Your task to perform on an android device: How much does a 2 bedroom apartment rent for in Philadelphia? Image 0: 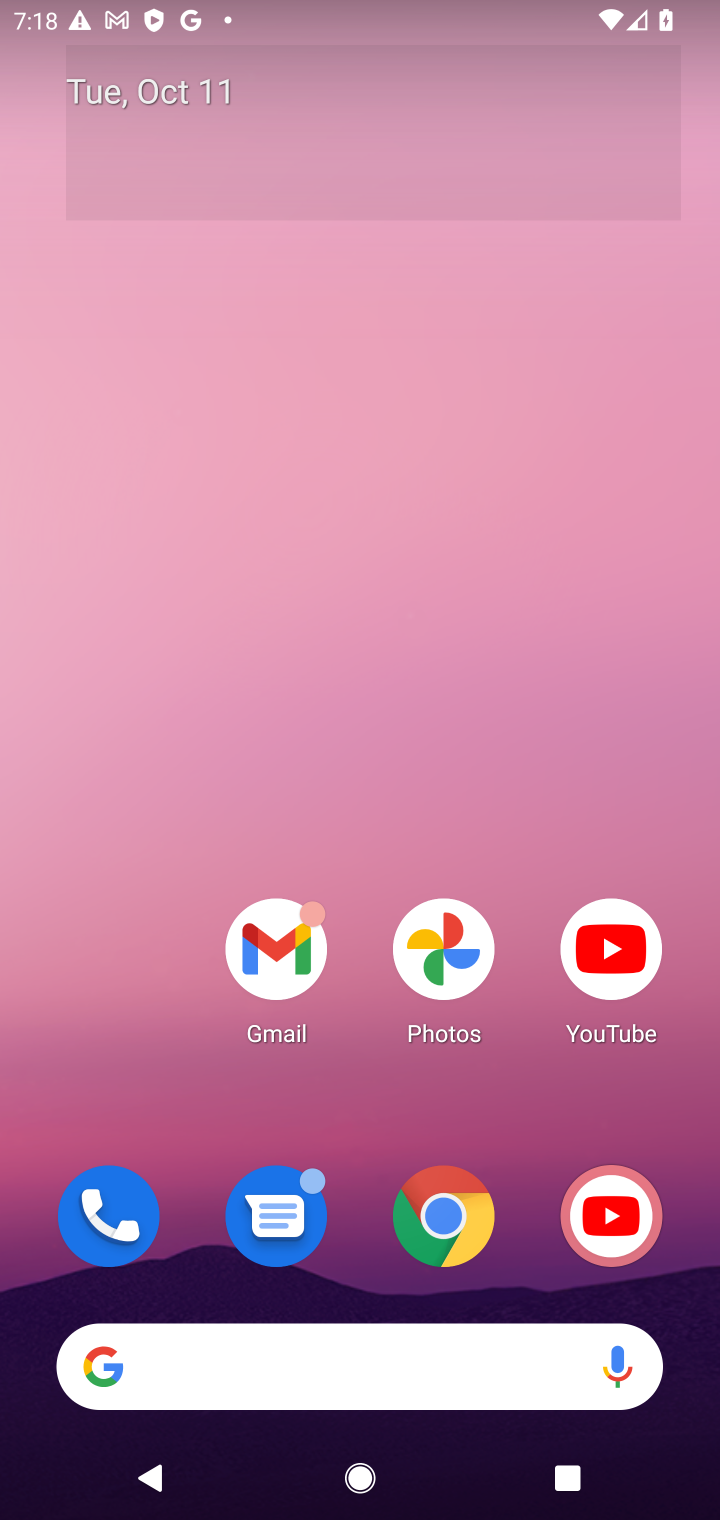
Step 0: click (463, 1261)
Your task to perform on an android device: How much does a 2 bedroom apartment rent for in Philadelphia? Image 1: 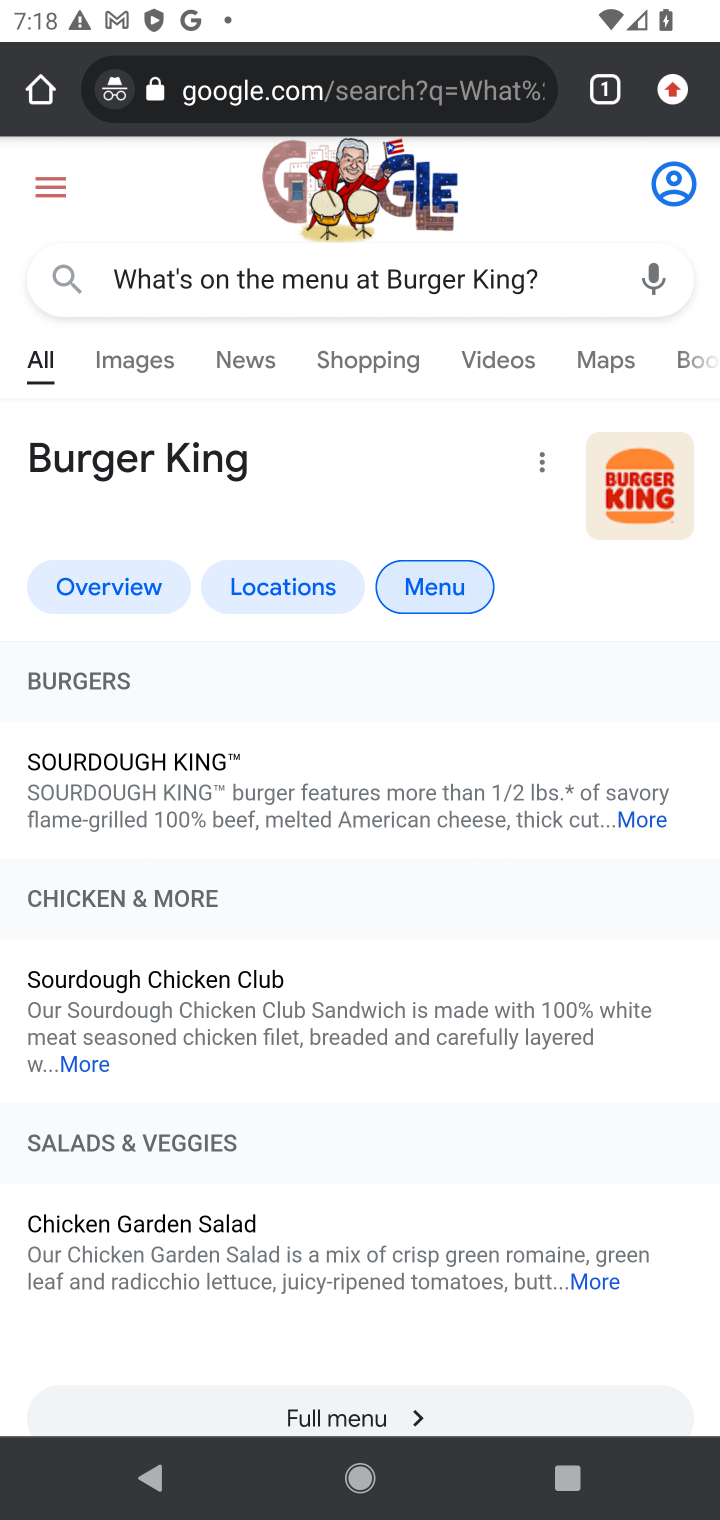
Step 1: click (596, 292)
Your task to perform on an android device: How much does a 2 bedroom apartment rent for in Philadelphia? Image 2: 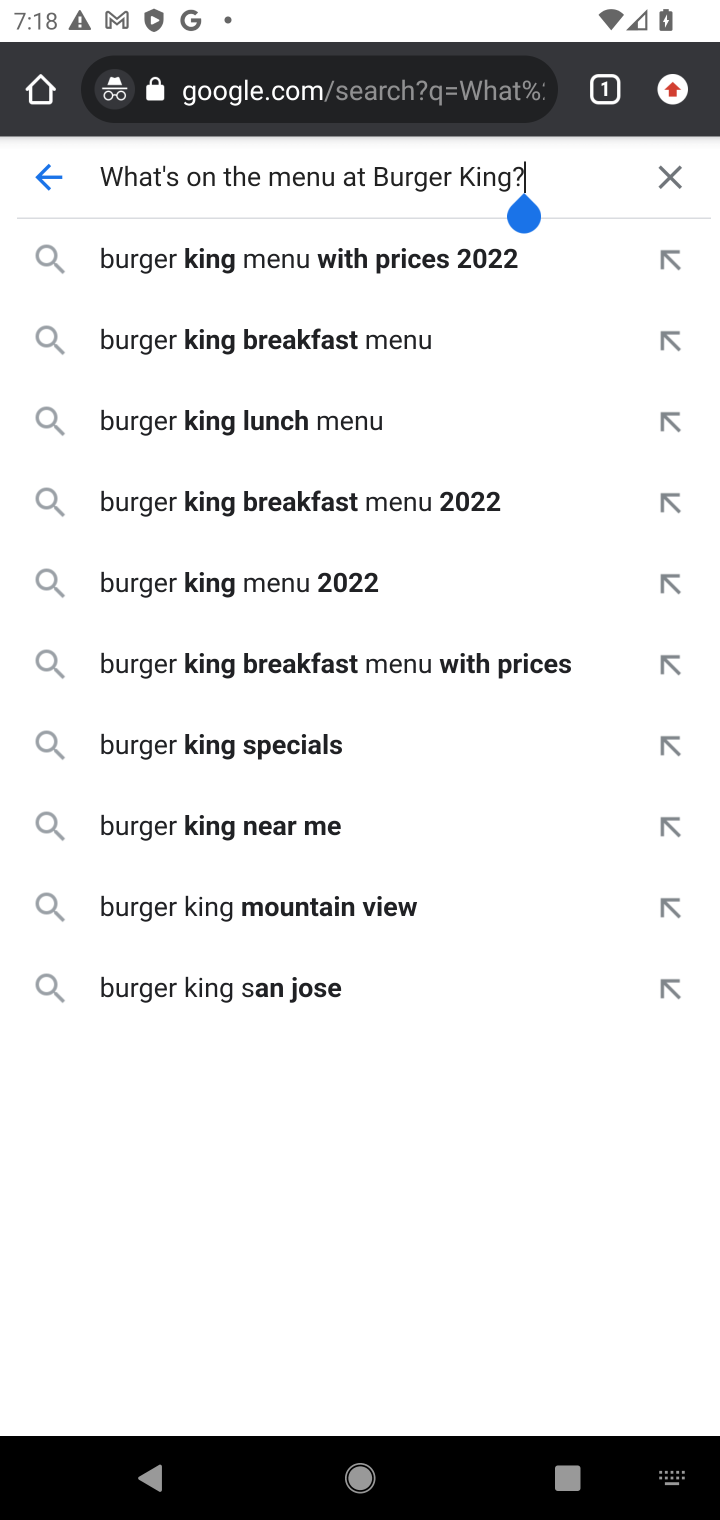
Step 2: click (675, 178)
Your task to perform on an android device: How much does a 2 bedroom apartment rent for in Philadelphia? Image 3: 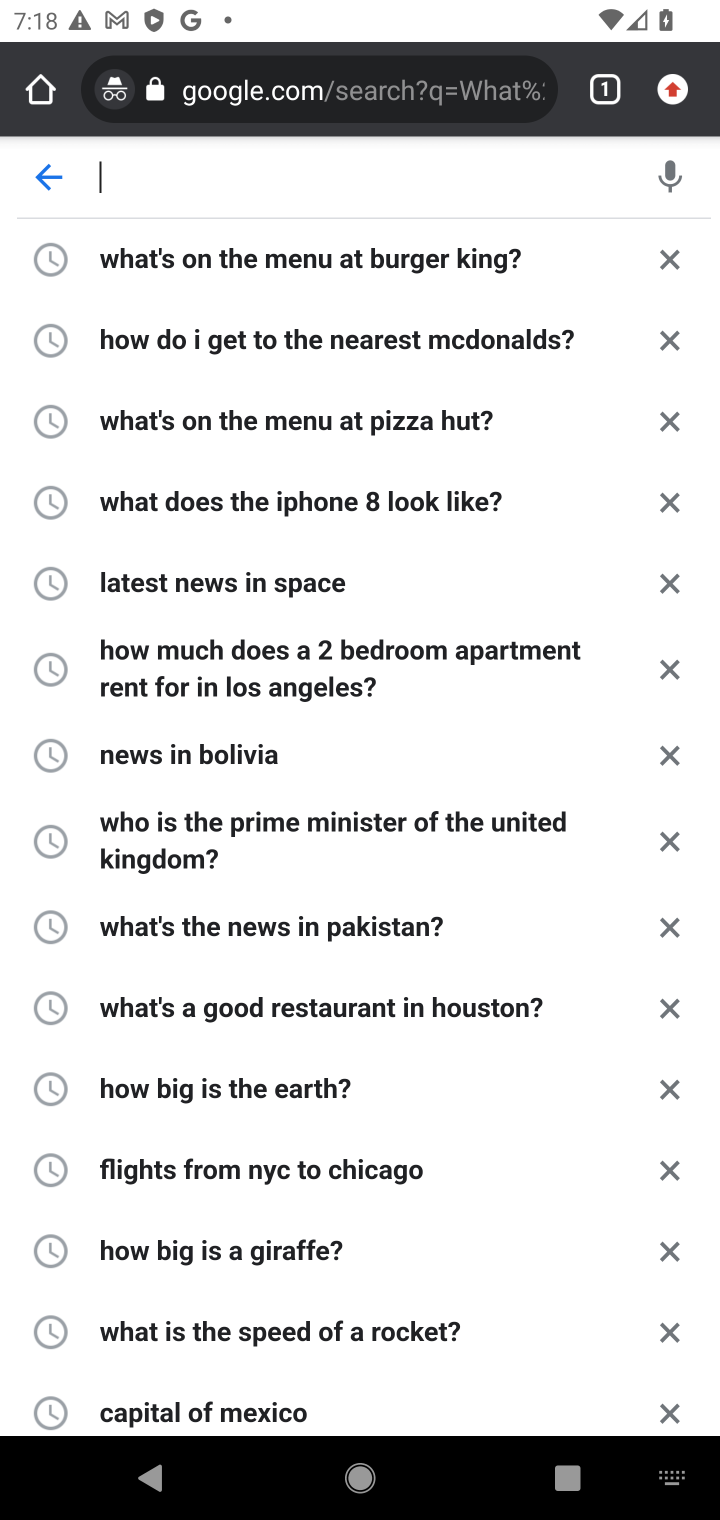
Step 3: type "How much does a 2 bedroom apartment rent for in Philadelphia?"
Your task to perform on an android device: How much does a 2 bedroom apartment rent for in Philadelphia? Image 4: 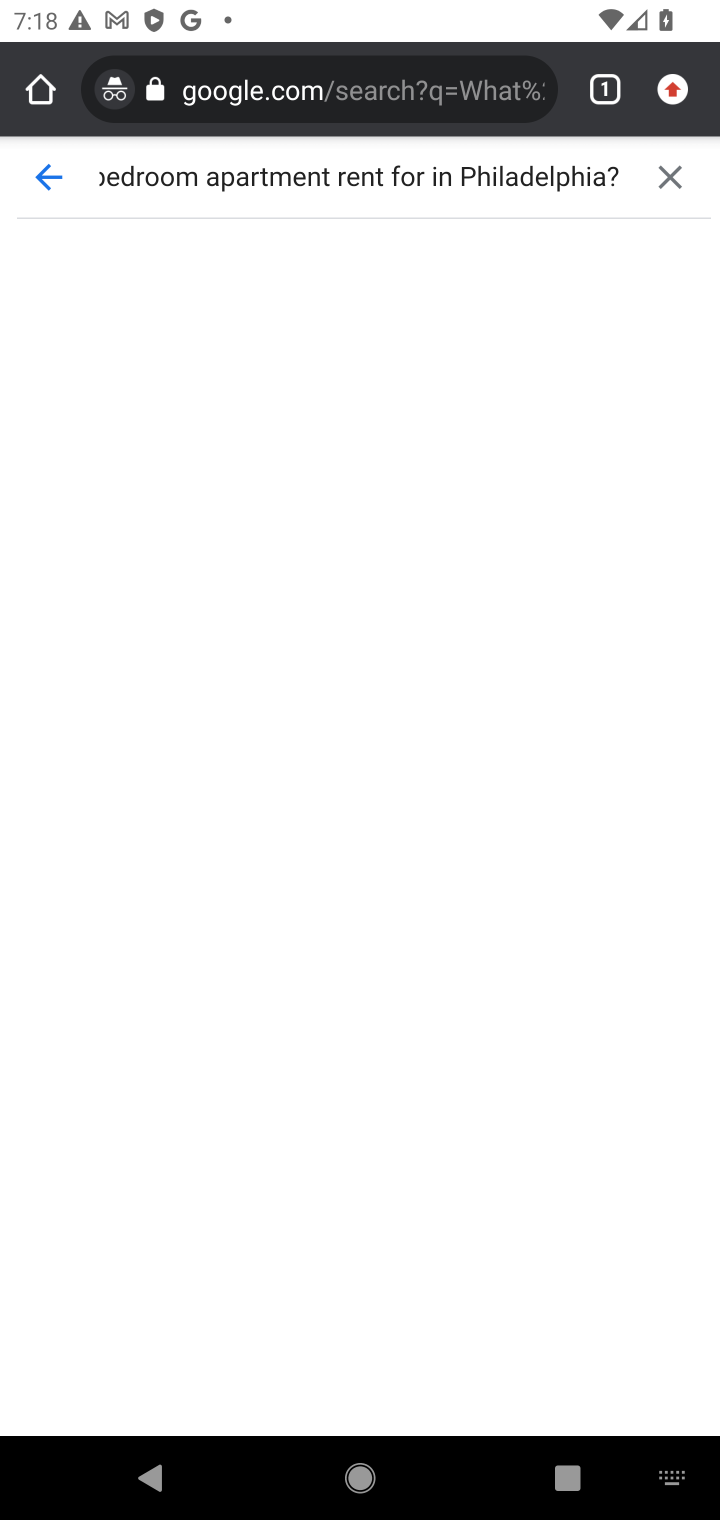
Step 4: press enter
Your task to perform on an android device: How much does a 2 bedroom apartment rent for in Philadelphia? Image 5: 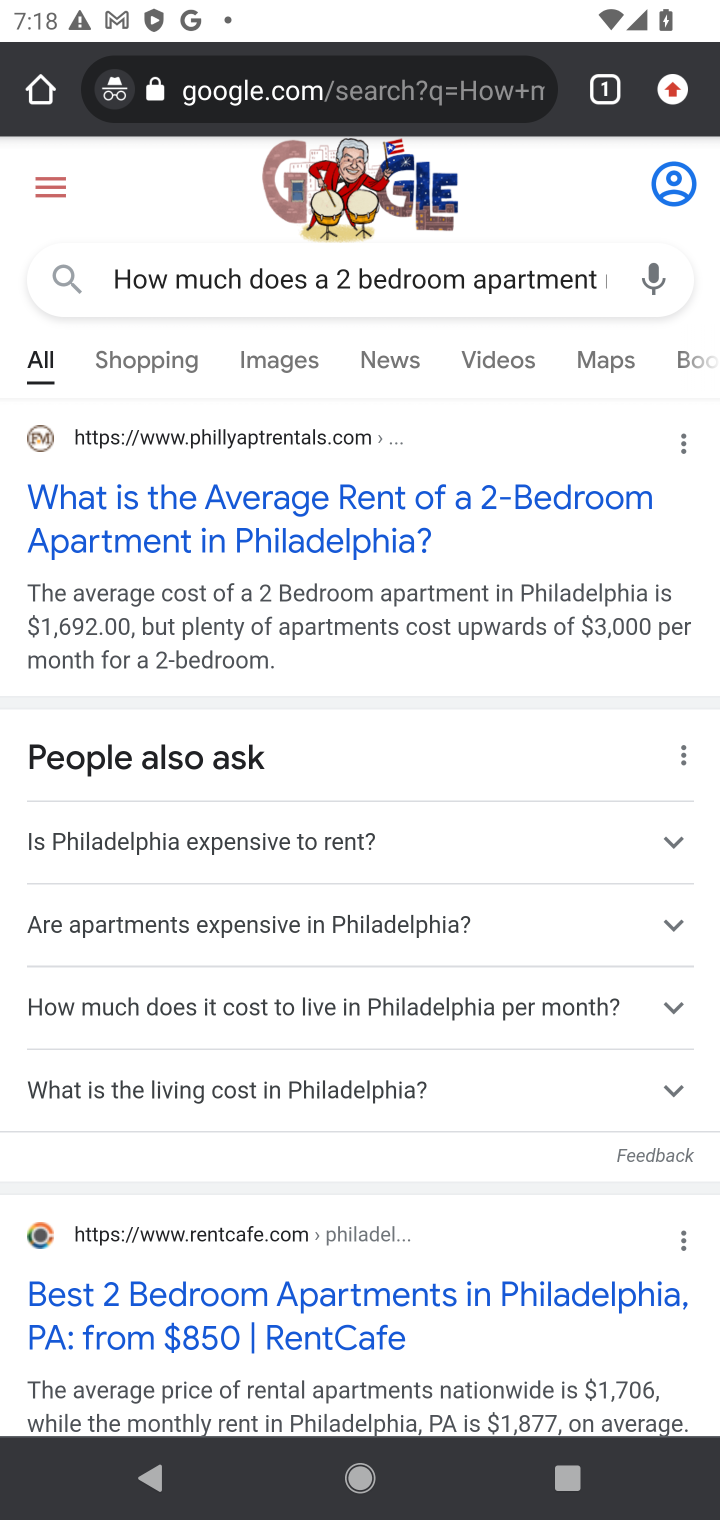
Step 5: click (290, 1295)
Your task to perform on an android device: How much does a 2 bedroom apartment rent for in Philadelphia? Image 6: 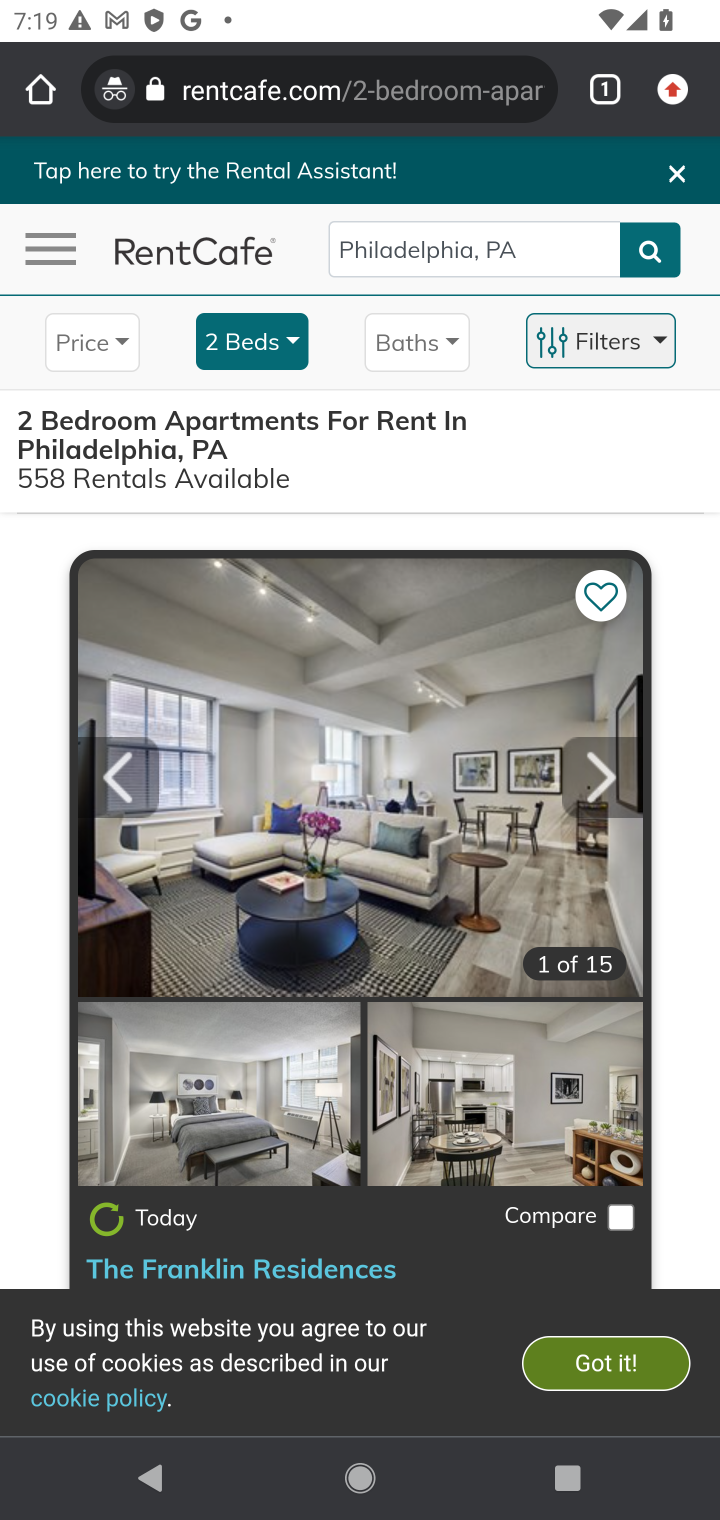
Step 6: task complete